Your task to perform on an android device: allow notifications from all sites in the chrome app Image 0: 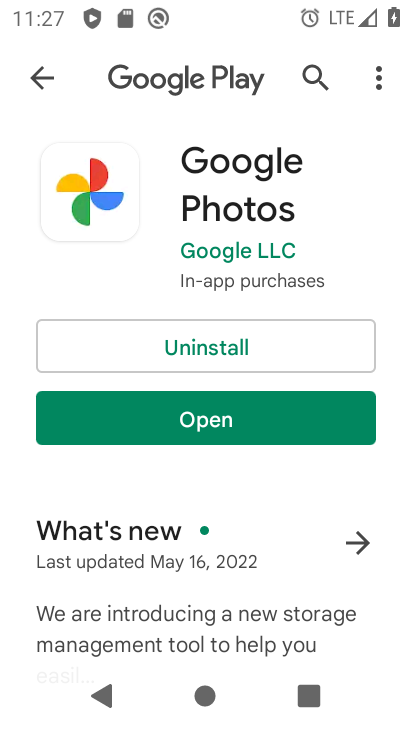
Step 0: press home button
Your task to perform on an android device: allow notifications from all sites in the chrome app Image 1: 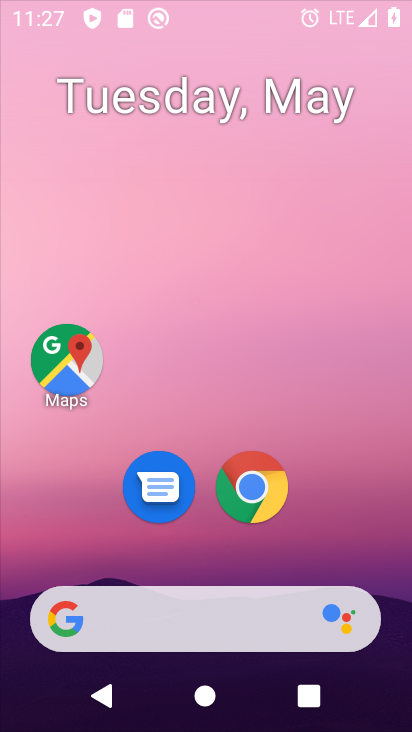
Step 1: drag from (199, 609) to (245, 88)
Your task to perform on an android device: allow notifications from all sites in the chrome app Image 2: 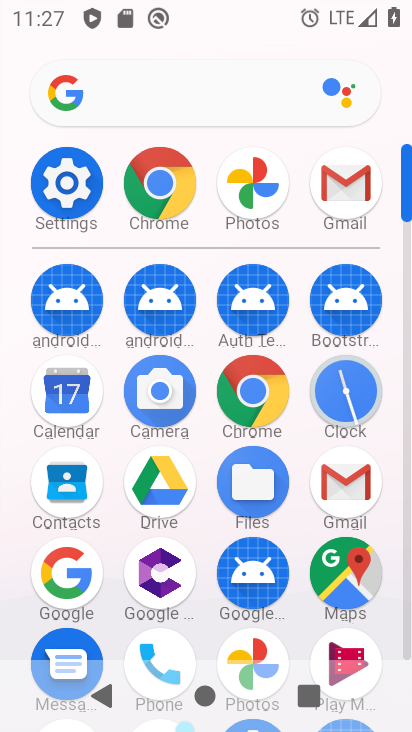
Step 2: click (253, 400)
Your task to perform on an android device: allow notifications from all sites in the chrome app Image 3: 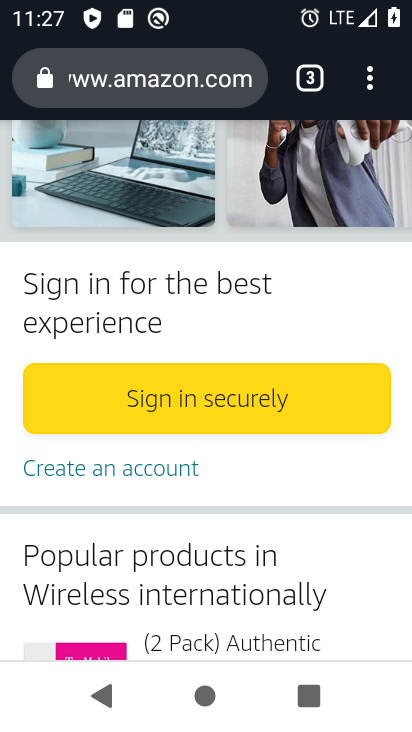
Step 3: click (370, 77)
Your task to perform on an android device: allow notifications from all sites in the chrome app Image 4: 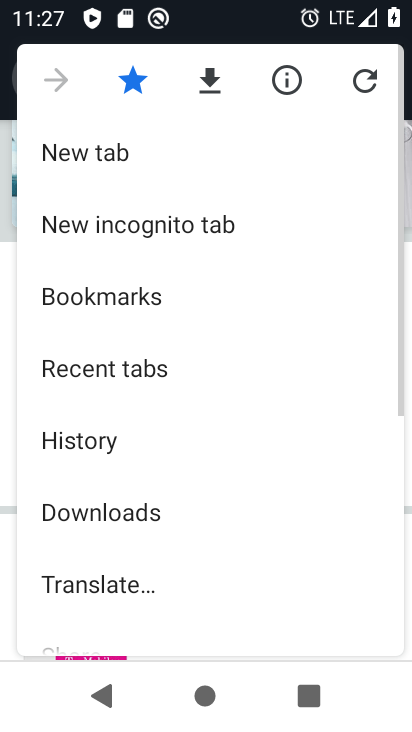
Step 4: drag from (136, 534) to (229, 59)
Your task to perform on an android device: allow notifications from all sites in the chrome app Image 5: 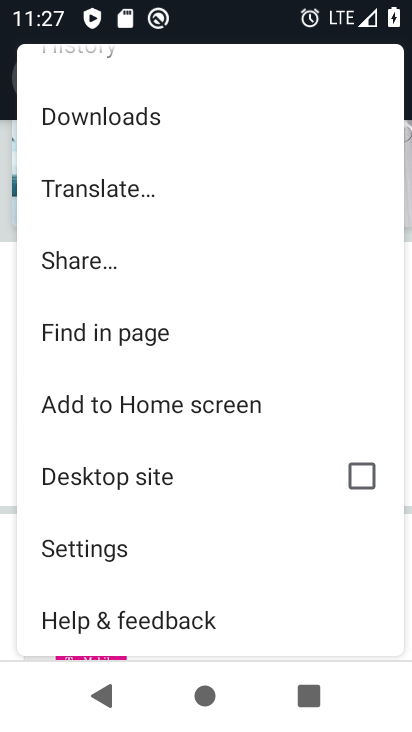
Step 5: click (96, 550)
Your task to perform on an android device: allow notifications from all sites in the chrome app Image 6: 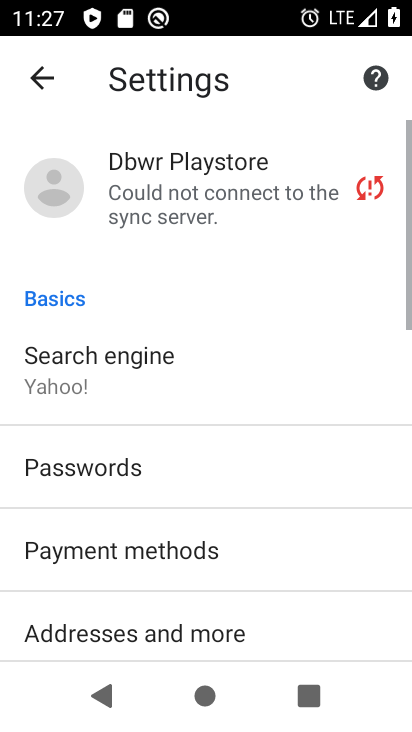
Step 6: drag from (151, 523) to (174, 41)
Your task to perform on an android device: allow notifications from all sites in the chrome app Image 7: 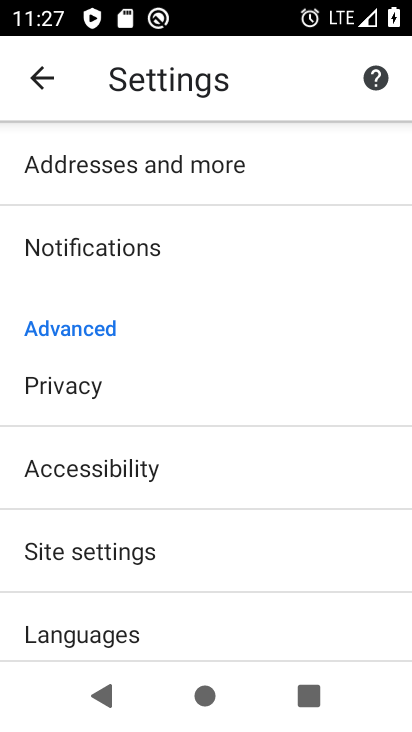
Step 7: drag from (171, 597) to (231, 271)
Your task to perform on an android device: allow notifications from all sites in the chrome app Image 8: 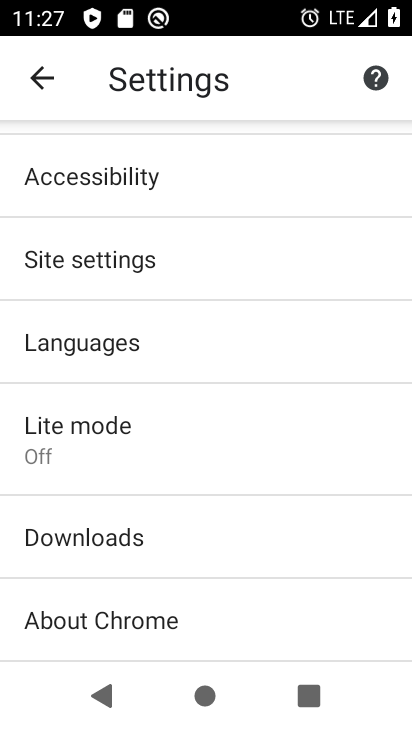
Step 8: click (152, 255)
Your task to perform on an android device: allow notifications from all sites in the chrome app Image 9: 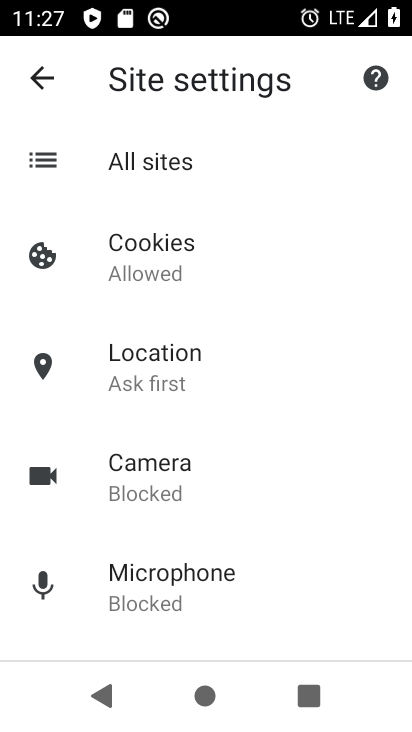
Step 9: click (155, 249)
Your task to perform on an android device: allow notifications from all sites in the chrome app Image 10: 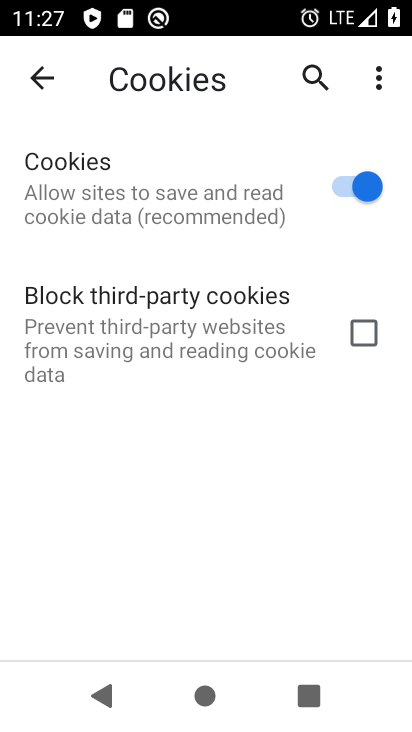
Step 10: click (26, 75)
Your task to perform on an android device: allow notifications from all sites in the chrome app Image 11: 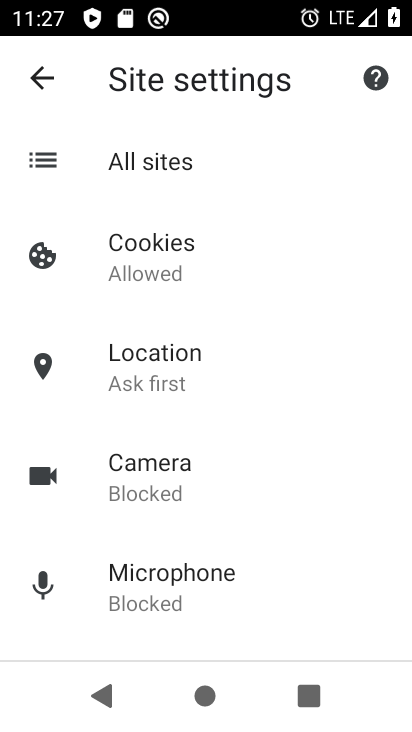
Step 11: drag from (222, 576) to (285, 251)
Your task to perform on an android device: allow notifications from all sites in the chrome app Image 12: 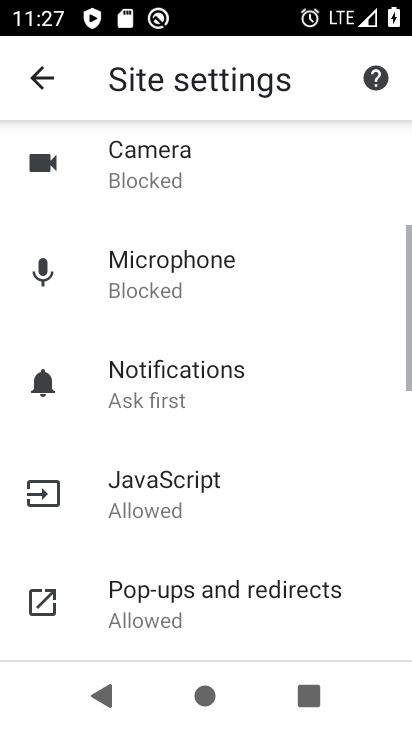
Step 12: click (199, 375)
Your task to perform on an android device: allow notifications from all sites in the chrome app Image 13: 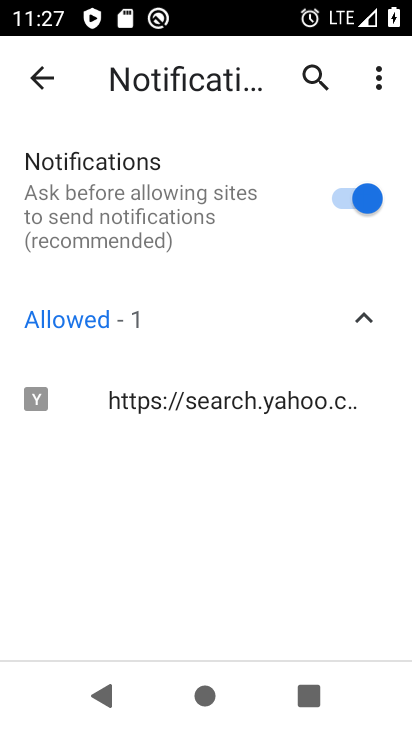
Step 13: task complete